Your task to perform on an android device: change keyboard looks Image 0: 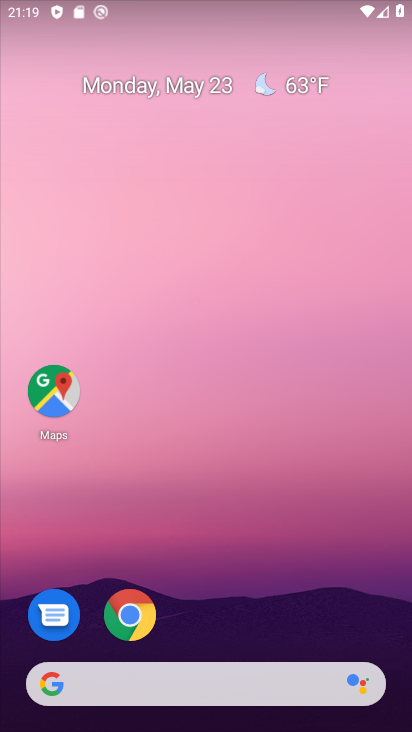
Step 0: drag from (200, 609) to (233, 139)
Your task to perform on an android device: change keyboard looks Image 1: 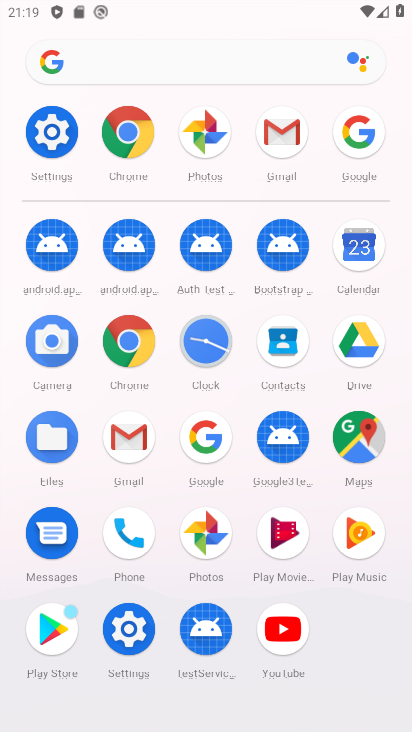
Step 1: click (53, 136)
Your task to perform on an android device: change keyboard looks Image 2: 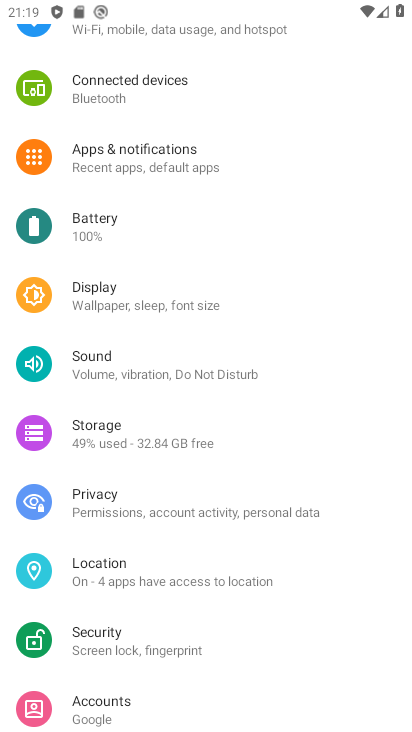
Step 2: drag from (162, 654) to (179, 197)
Your task to perform on an android device: change keyboard looks Image 3: 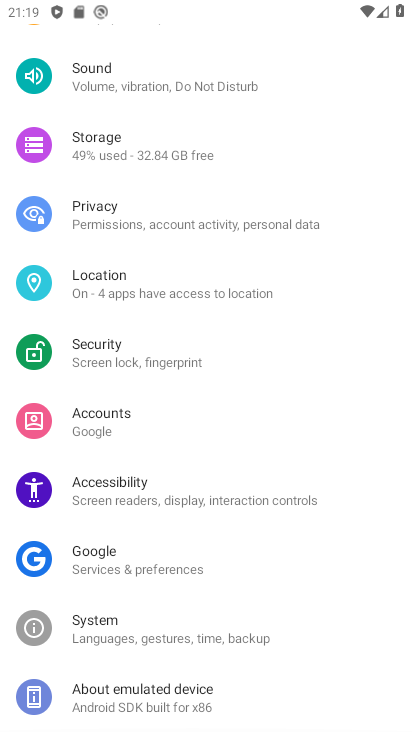
Step 3: click (121, 628)
Your task to perform on an android device: change keyboard looks Image 4: 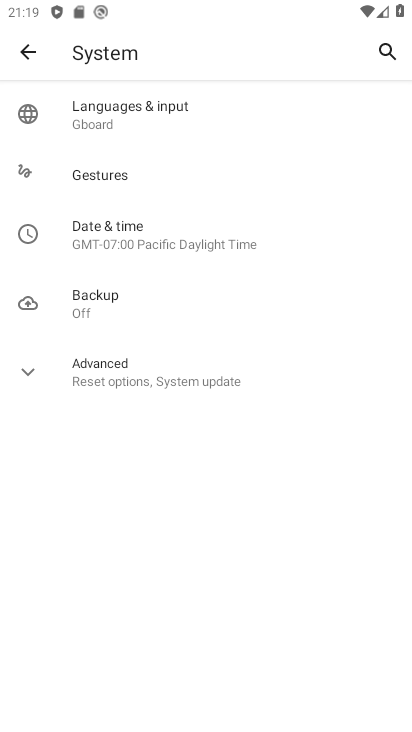
Step 4: click (116, 106)
Your task to perform on an android device: change keyboard looks Image 5: 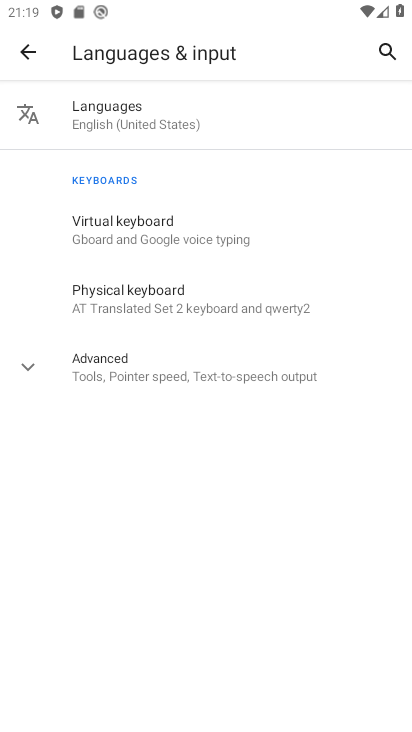
Step 5: click (167, 249)
Your task to perform on an android device: change keyboard looks Image 6: 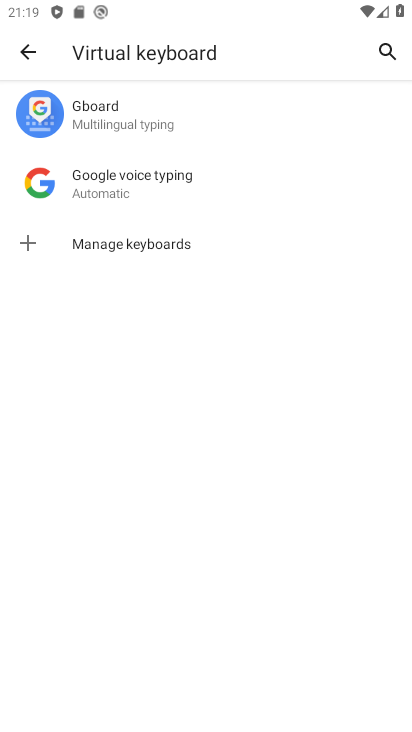
Step 6: click (139, 119)
Your task to perform on an android device: change keyboard looks Image 7: 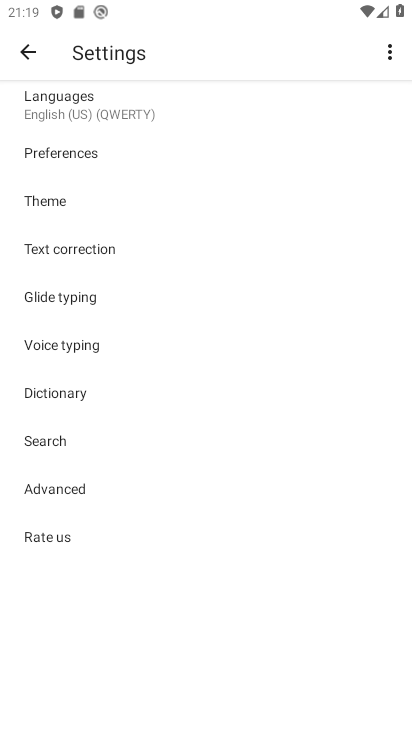
Step 7: click (85, 199)
Your task to perform on an android device: change keyboard looks Image 8: 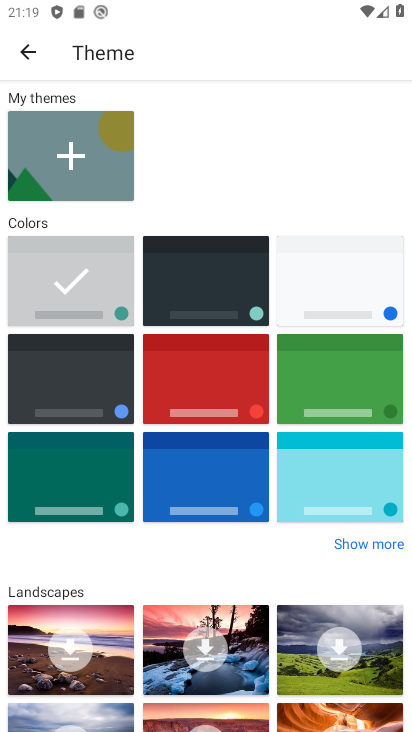
Step 8: click (180, 278)
Your task to perform on an android device: change keyboard looks Image 9: 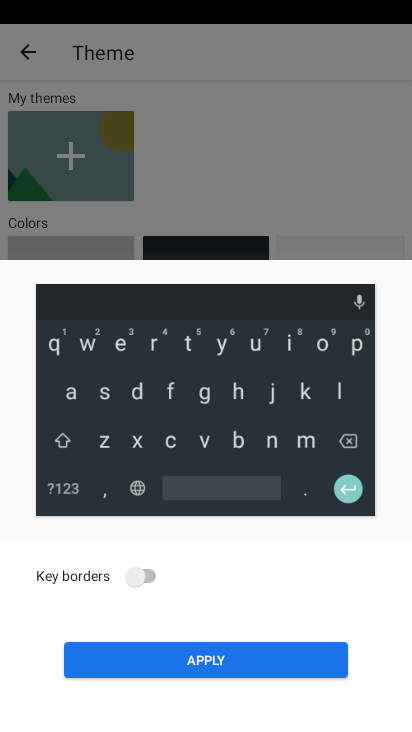
Step 9: click (202, 670)
Your task to perform on an android device: change keyboard looks Image 10: 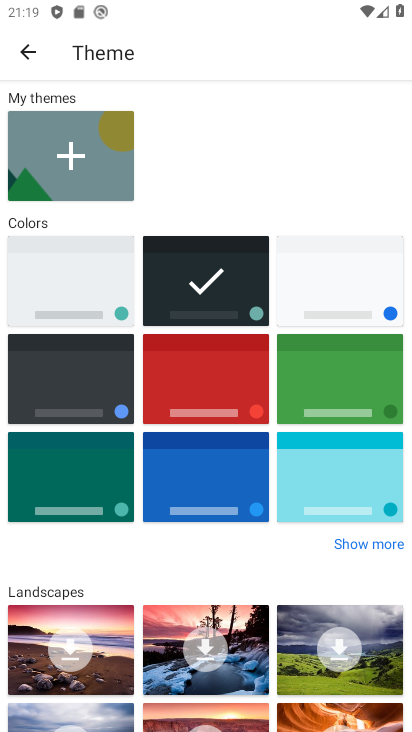
Step 10: task complete